Your task to perform on an android device: Go to Maps Image 0: 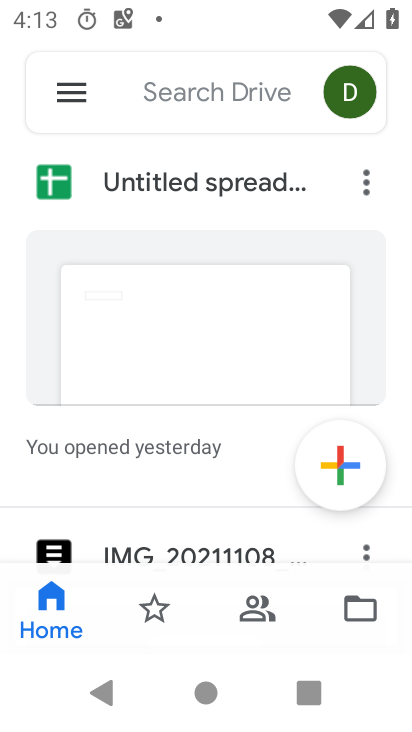
Step 0: press home button
Your task to perform on an android device: Go to Maps Image 1: 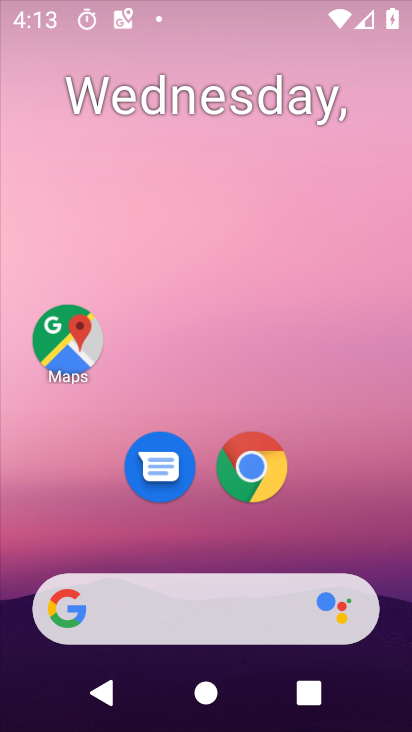
Step 1: click (61, 349)
Your task to perform on an android device: Go to Maps Image 2: 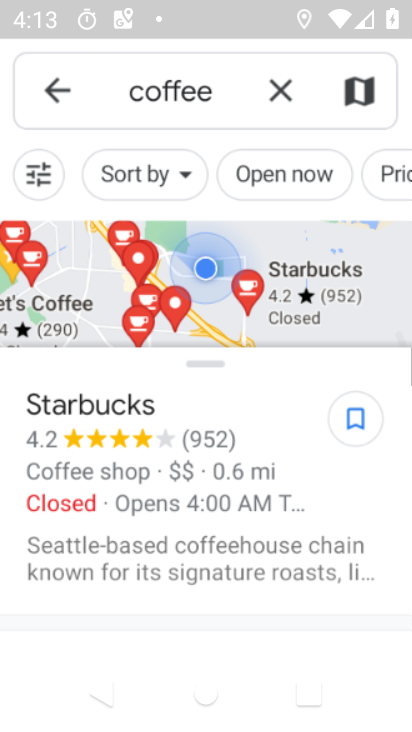
Step 2: task complete